Your task to perform on an android device: choose inbox layout in the gmail app Image 0: 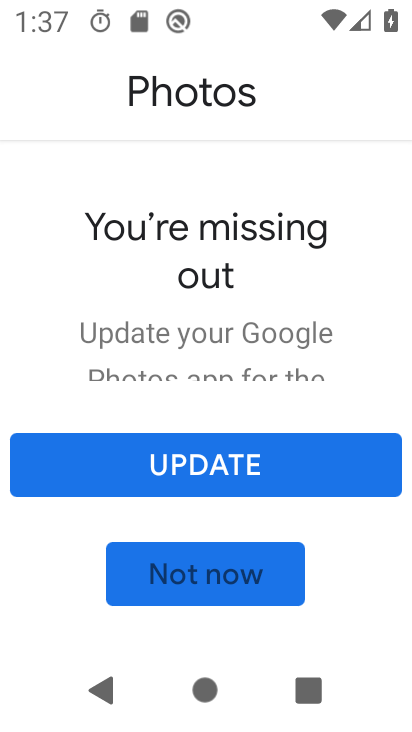
Step 0: press home button
Your task to perform on an android device: choose inbox layout in the gmail app Image 1: 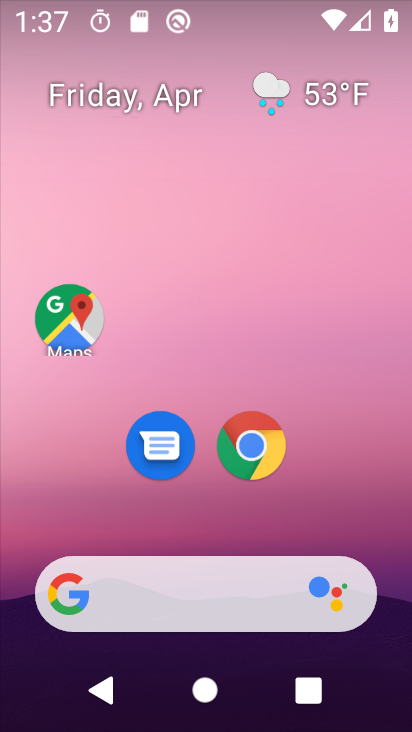
Step 1: drag from (365, 524) to (348, 151)
Your task to perform on an android device: choose inbox layout in the gmail app Image 2: 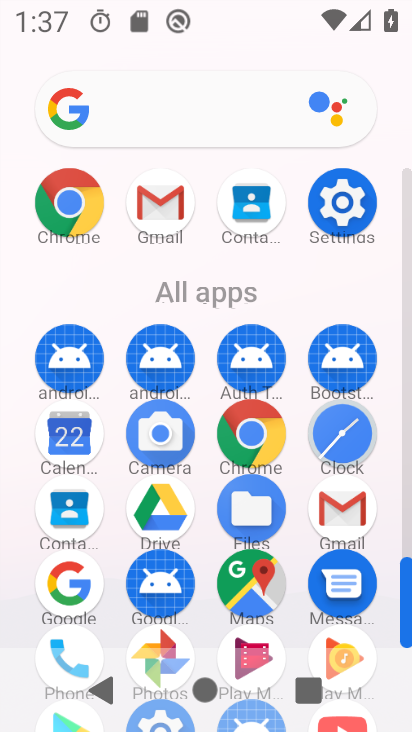
Step 2: click (357, 510)
Your task to perform on an android device: choose inbox layout in the gmail app Image 3: 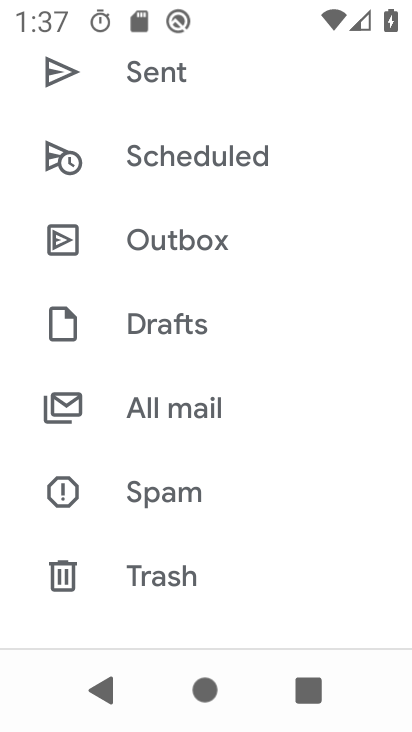
Step 3: drag from (352, 503) to (340, 340)
Your task to perform on an android device: choose inbox layout in the gmail app Image 4: 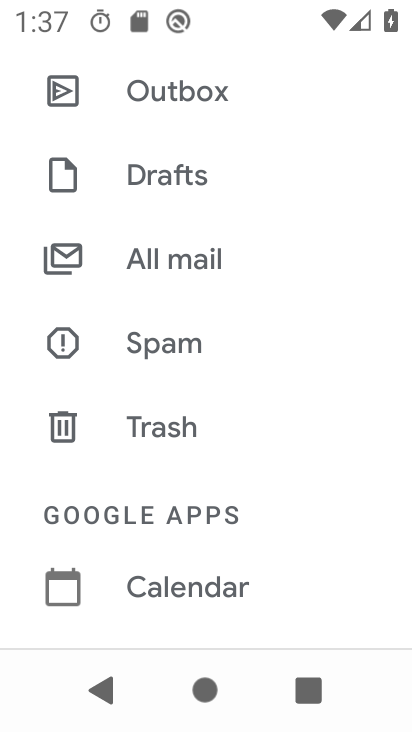
Step 4: drag from (332, 586) to (323, 418)
Your task to perform on an android device: choose inbox layout in the gmail app Image 5: 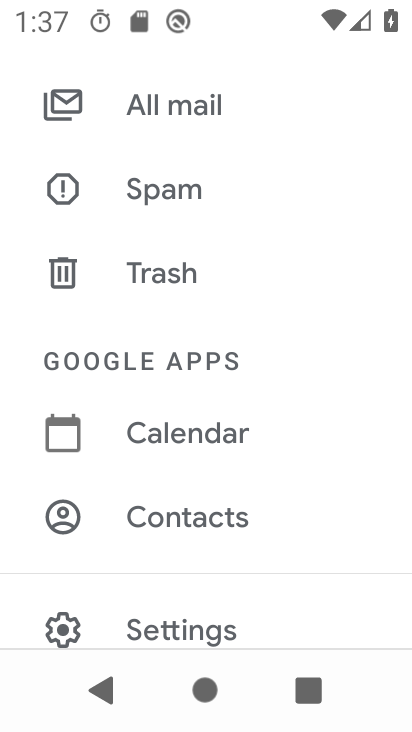
Step 5: drag from (337, 590) to (324, 427)
Your task to perform on an android device: choose inbox layout in the gmail app Image 6: 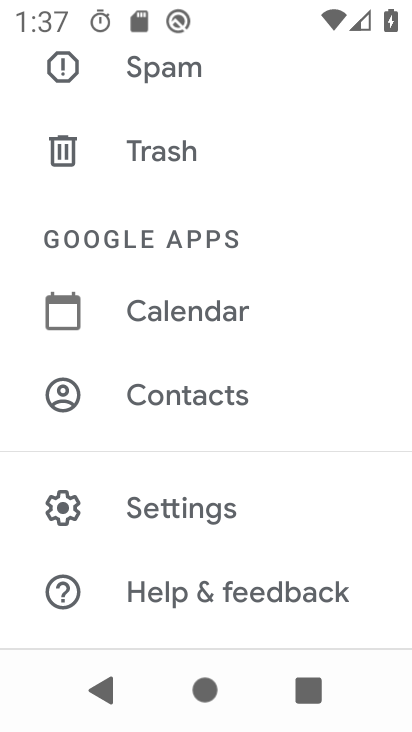
Step 6: click (210, 506)
Your task to perform on an android device: choose inbox layout in the gmail app Image 7: 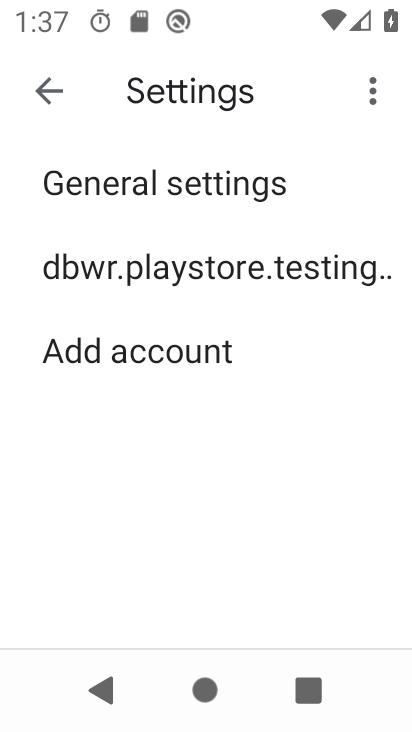
Step 7: click (274, 265)
Your task to perform on an android device: choose inbox layout in the gmail app Image 8: 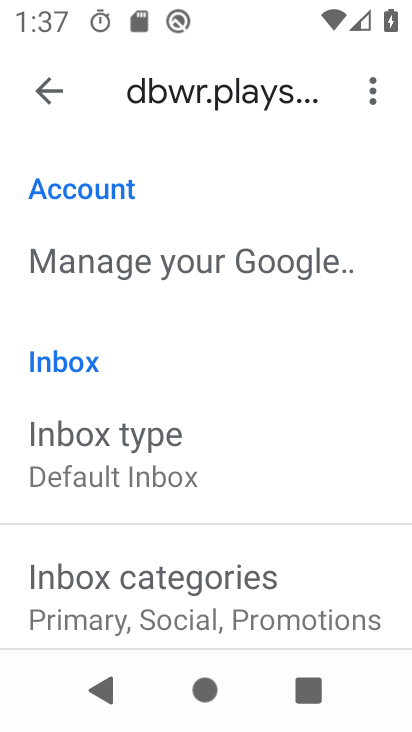
Step 8: drag from (317, 528) to (322, 385)
Your task to perform on an android device: choose inbox layout in the gmail app Image 9: 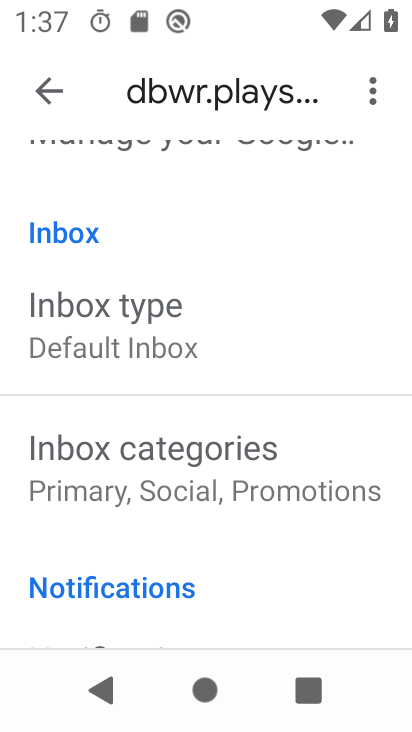
Step 9: drag from (340, 572) to (338, 414)
Your task to perform on an android device: choose inbox layout in the gmail app Image 10: 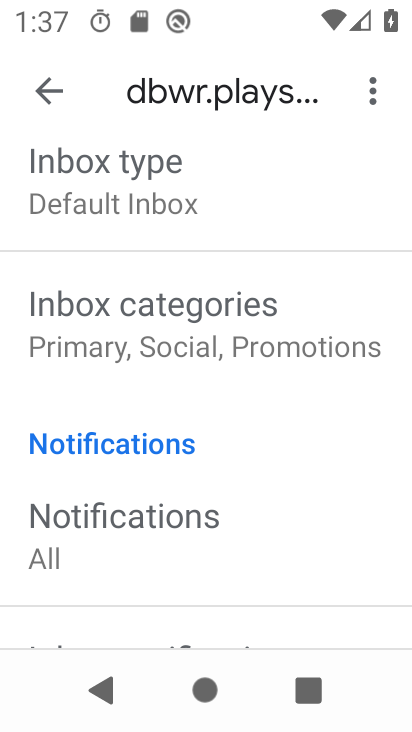
Step 10: drag from (352, 585) to (331, 420)
Your task to perform on an android device: choose inbox layout in the gmail app Image 11: 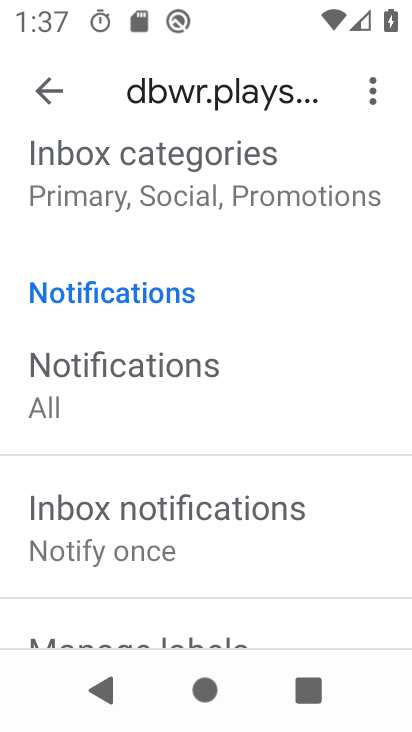
Step 11: drag from (341, 587) to (344, 433)
Your task to perform on an android device: choose inbox layout in the gmail app Image 12: 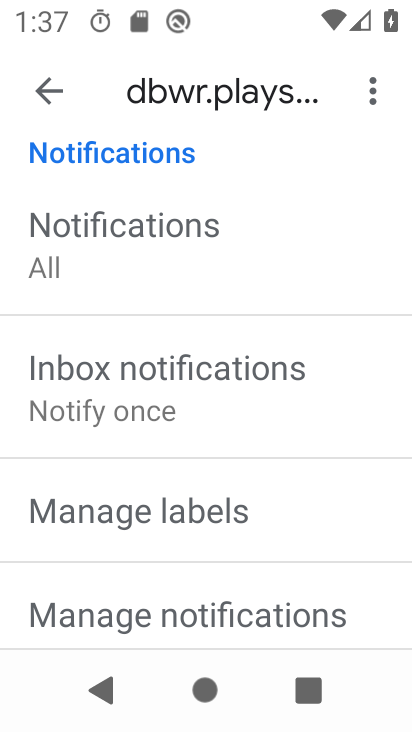
Step 12: drag from (356, 256) to (363, 423)
Your task to perform on an android device: choose inbox layout in the gmail app Image 13: 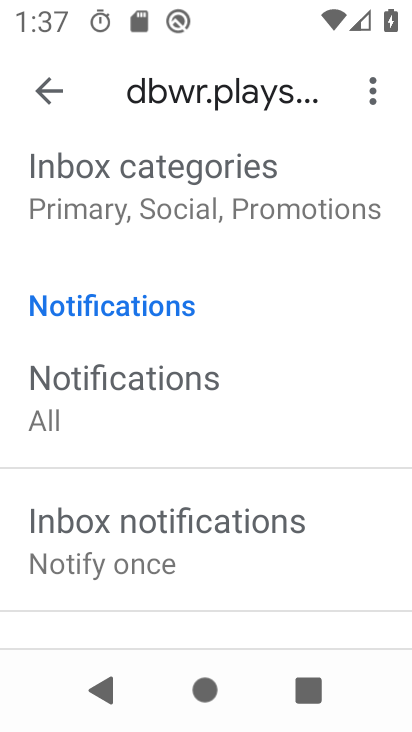
Step 13: drag from (359, 301) to (340, 446)
Your task to perform on an android device: choose inbox layout in the gmail app Image 14: 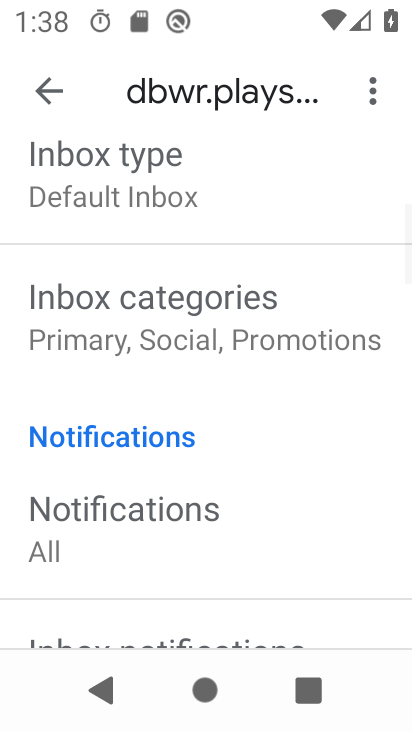
Step 14: drag from (330, 245) to (299, 424)
Your task to perform on an android device: choose inbox layout in the gmail app Image 15: 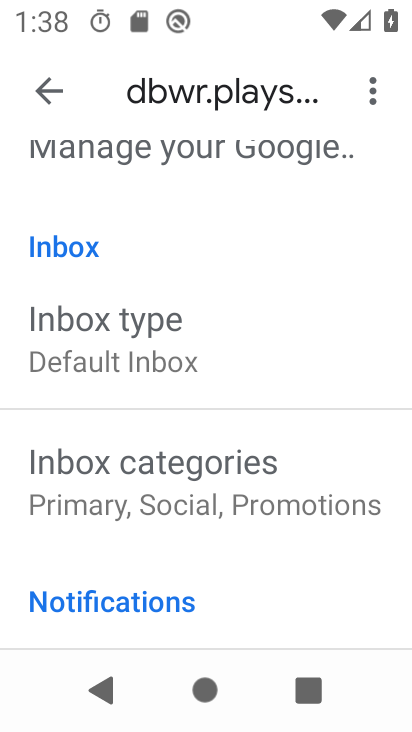
Step 15: click (113, 351)
Your task to perform on an android device: choose inbox layout in the gmail app Image 16: 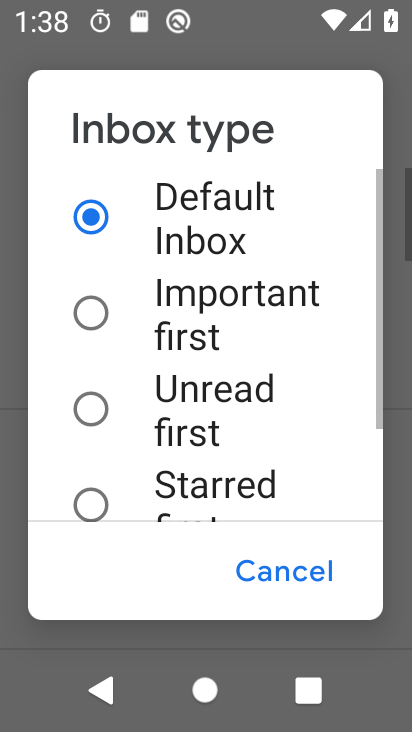
Step 16: click (175, 318)
Your task to perform on an android device: choose inbox layout in the gmail app Image 17: 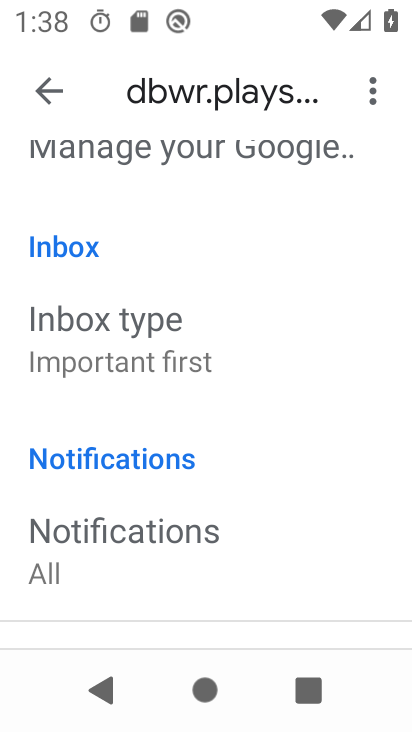
Step 17: task complete